Your task to perform on an android device: turn on bluetooth scan Image 0: 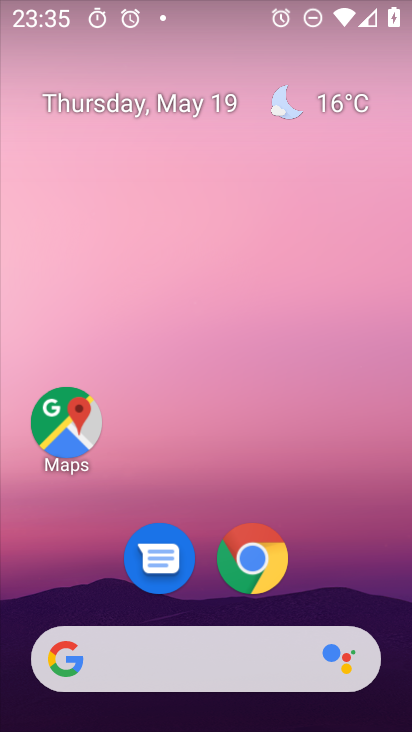
Step 0: drag from (219, 683) to (230, 27)
Your task to perform on an android device: turn on bluetooth scan Image 1: 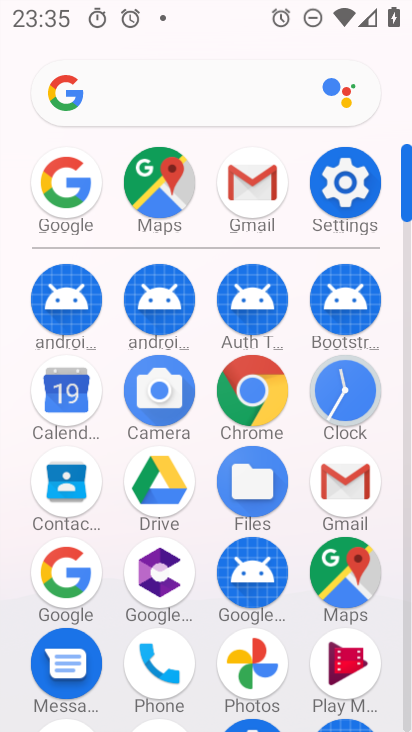
Step 1: click (347, 190)
Your task to perform on an android device: turn on bluetooth scan Image 2: 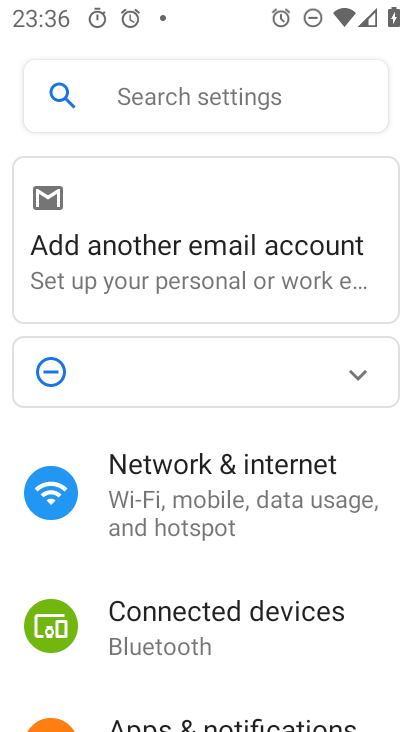
Step 2: drag from (191, 709) to (209, 420)
Your task to perform on an android device: turn on bluetooth scan Image 3: 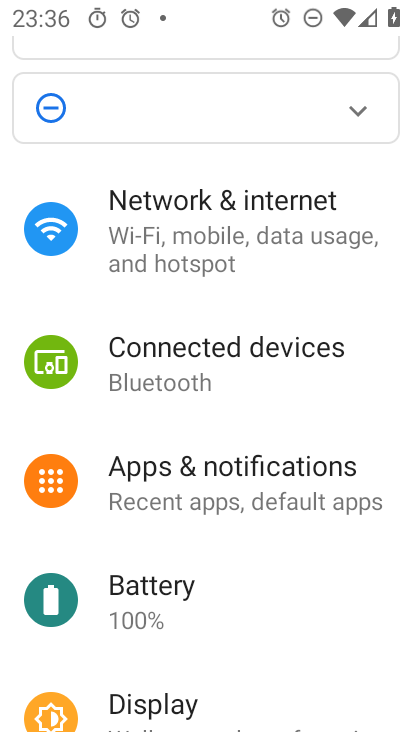
Step 3: drag from (210, 671) to (212, 338)
Your task to perform on an android device: turn on bluetooth scan Image 4: 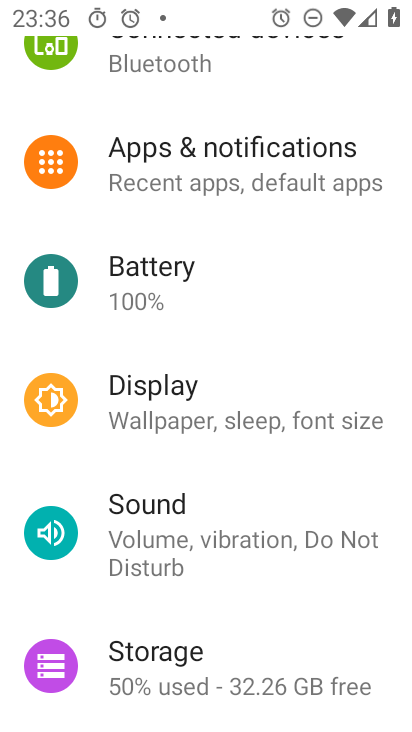
Step 4: drag from (256, 651) to (239, 282)
Your task to perform on an android device: turn on bluetooth scan Image 5: 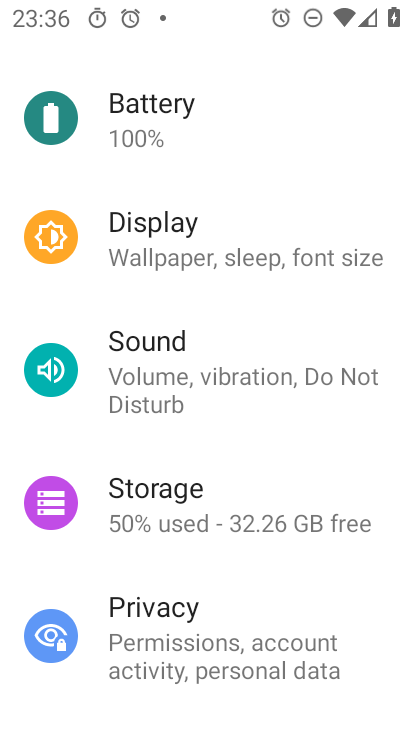
Step 5: drag from (203, 657) to (207, 316)
Your task to perform on an android device: turn on bluetooth scan Image 6: 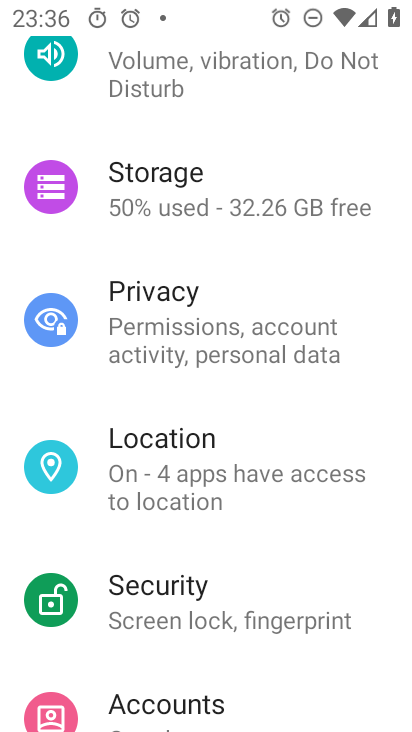
Step 6: click (225, 463)
Your task to perform on an android device: turn on bluetooth scan Image 7: 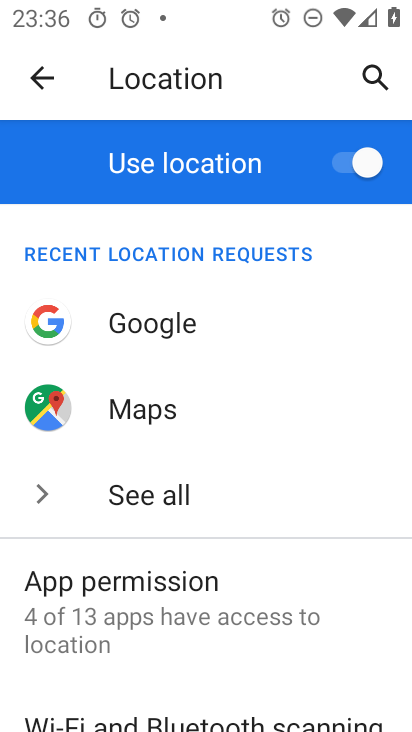
Step 7: click (207, 721)
Your task to perform on an android device: turn on bluetooth scan Image 8: 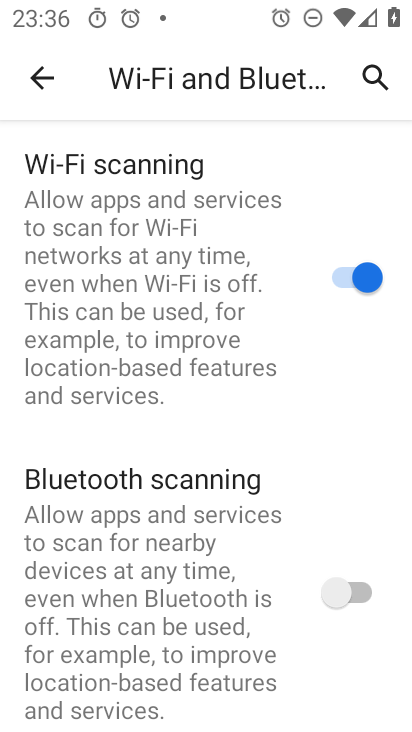
Step 8: click (363, 595)
Your task to perform on an android device: turn on bluetooth scan Image 9: 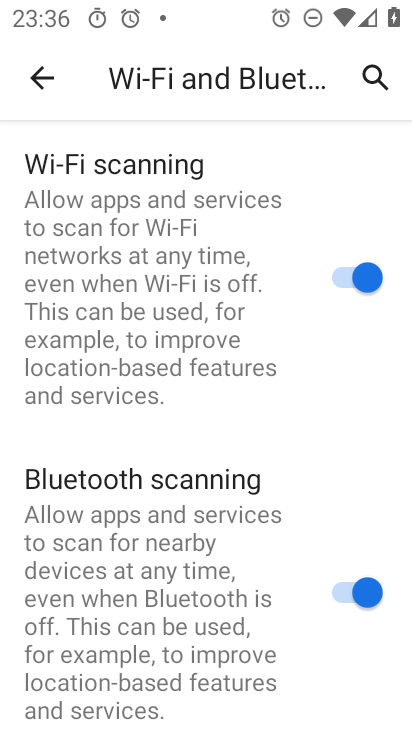
Step 9: task complete